Your task to perform on an android device: Go to network settings Image 0: 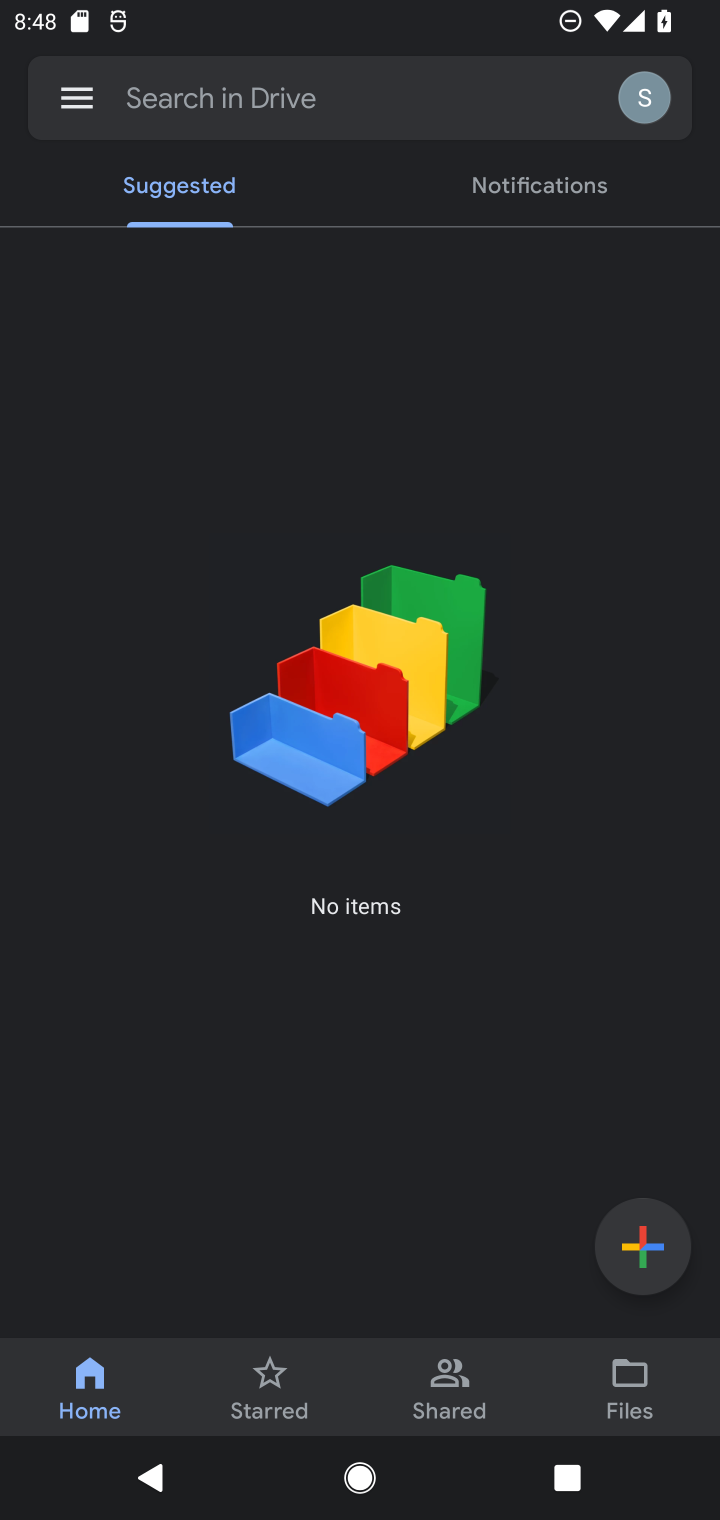
Step 0: press home button
Your task to perform on an android device: Go to network settings Image 1: 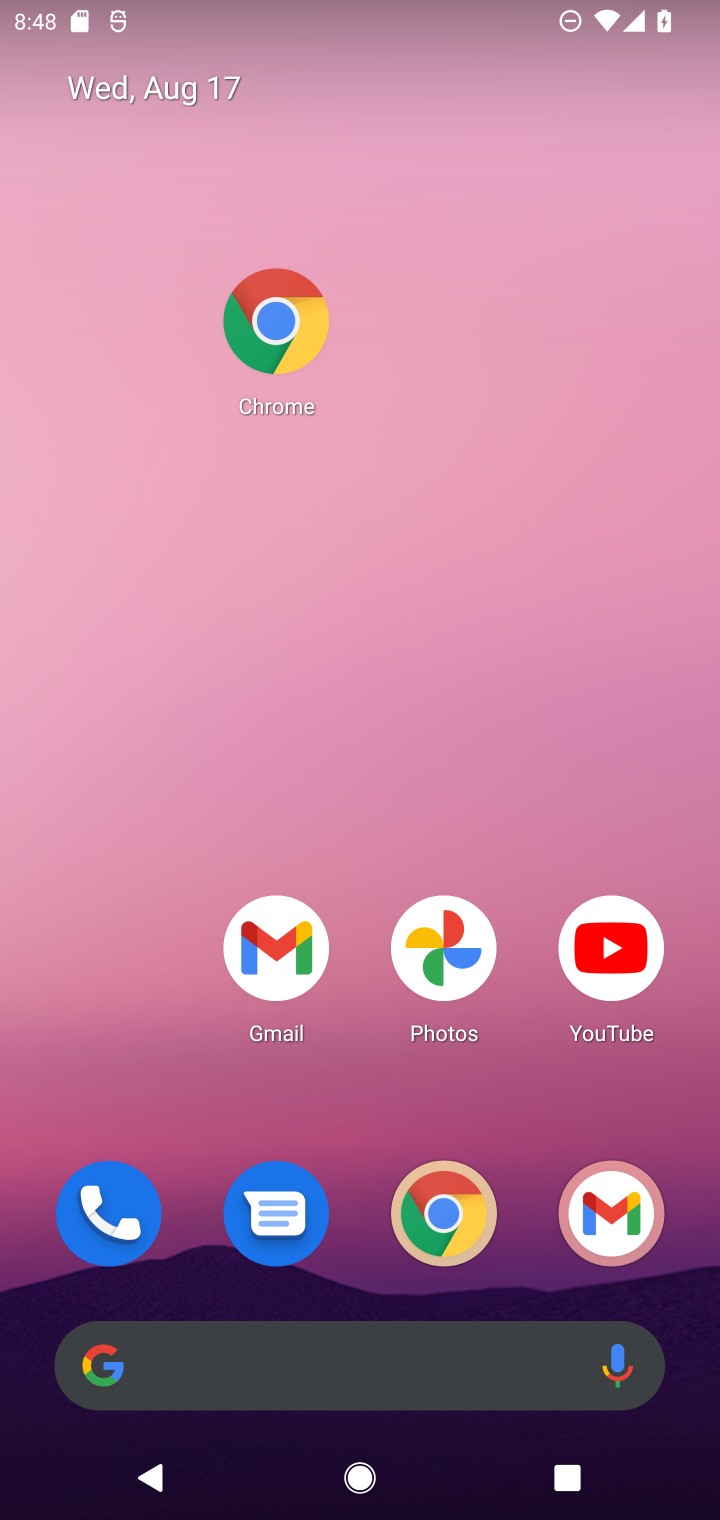
Step 1: drag from (335, 1309) to (381, 405)
Your task to perform on an android device: Go to network settings Image 2: 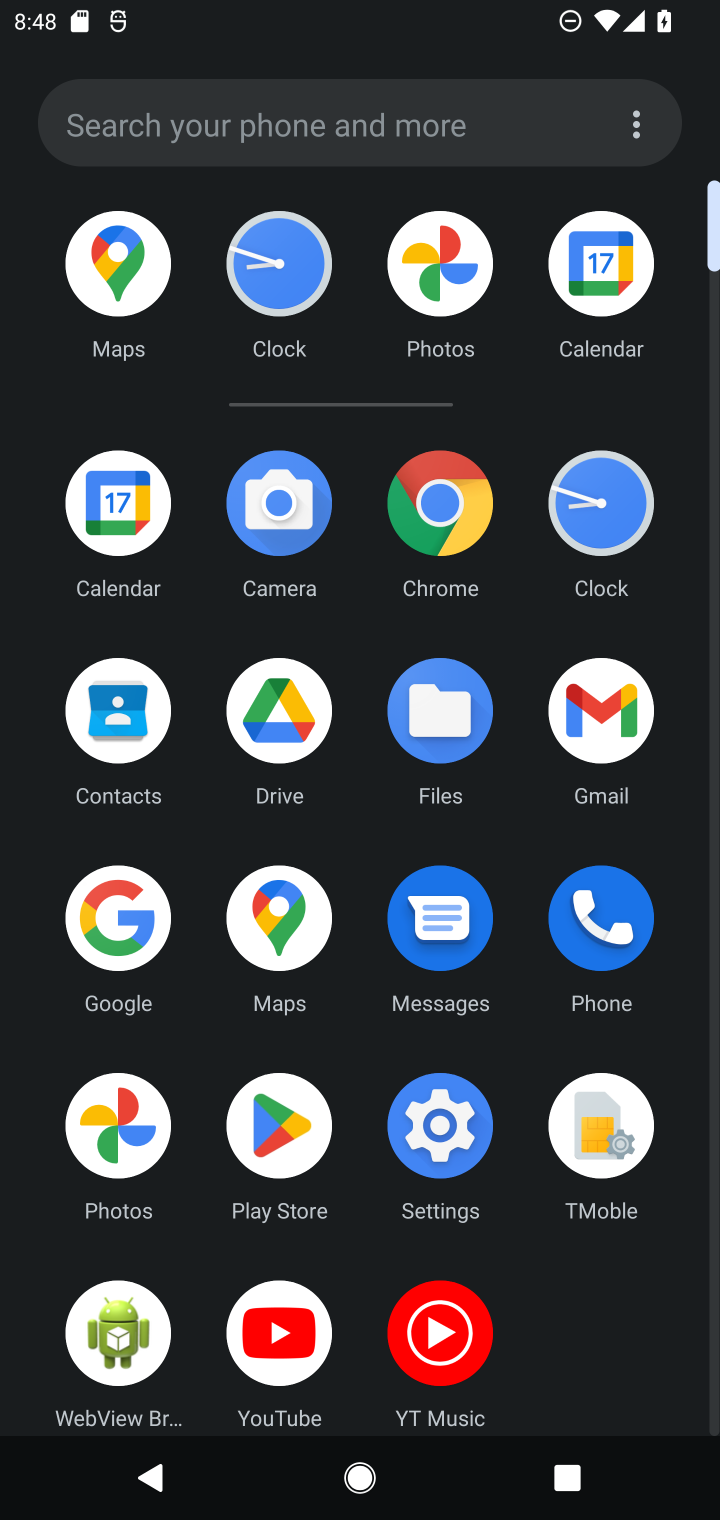
Step 2: click (419, 1183)
Your task to perform on an android device: Go to network settings Image 3: 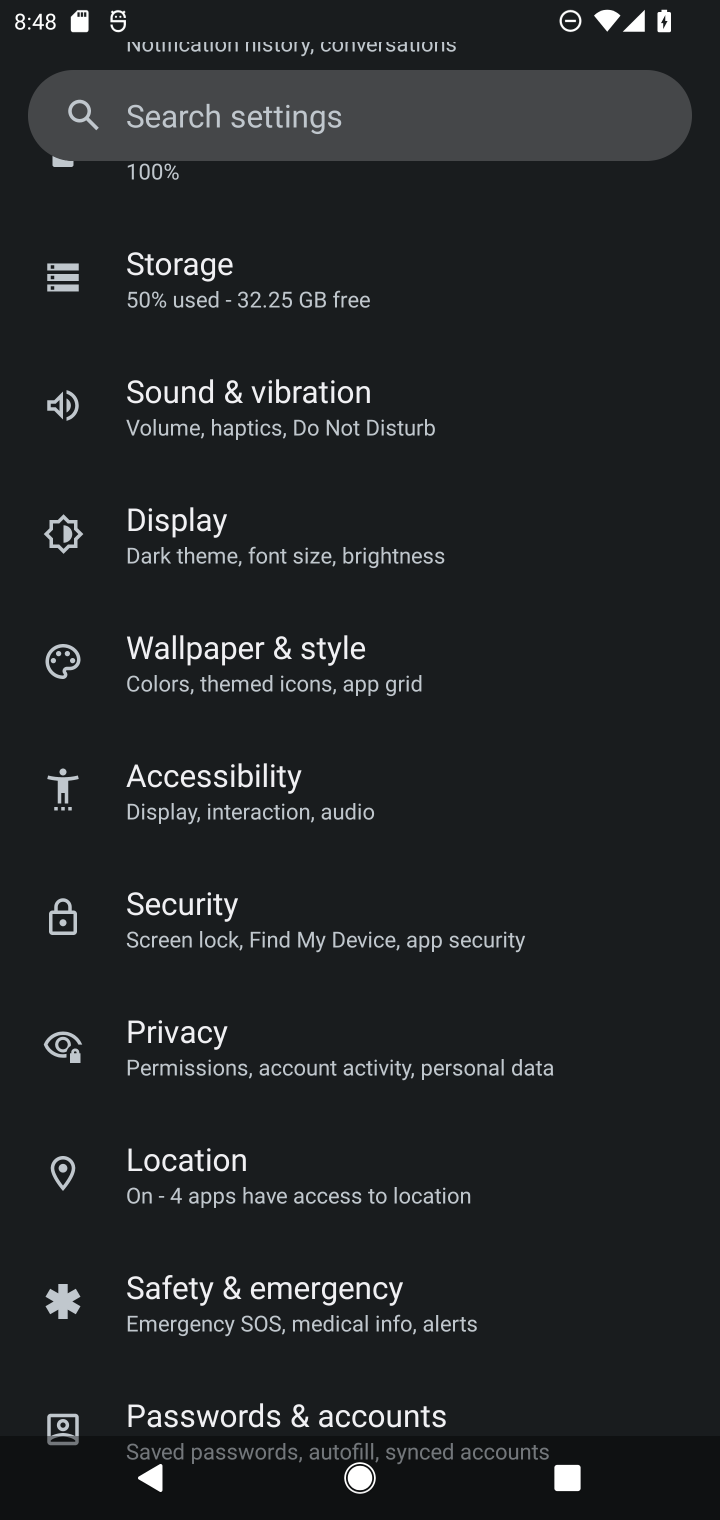
Step 3: drag from (227, 230) to (328, 912)
Your task to perform on an android device: Go to network settings Image 4: 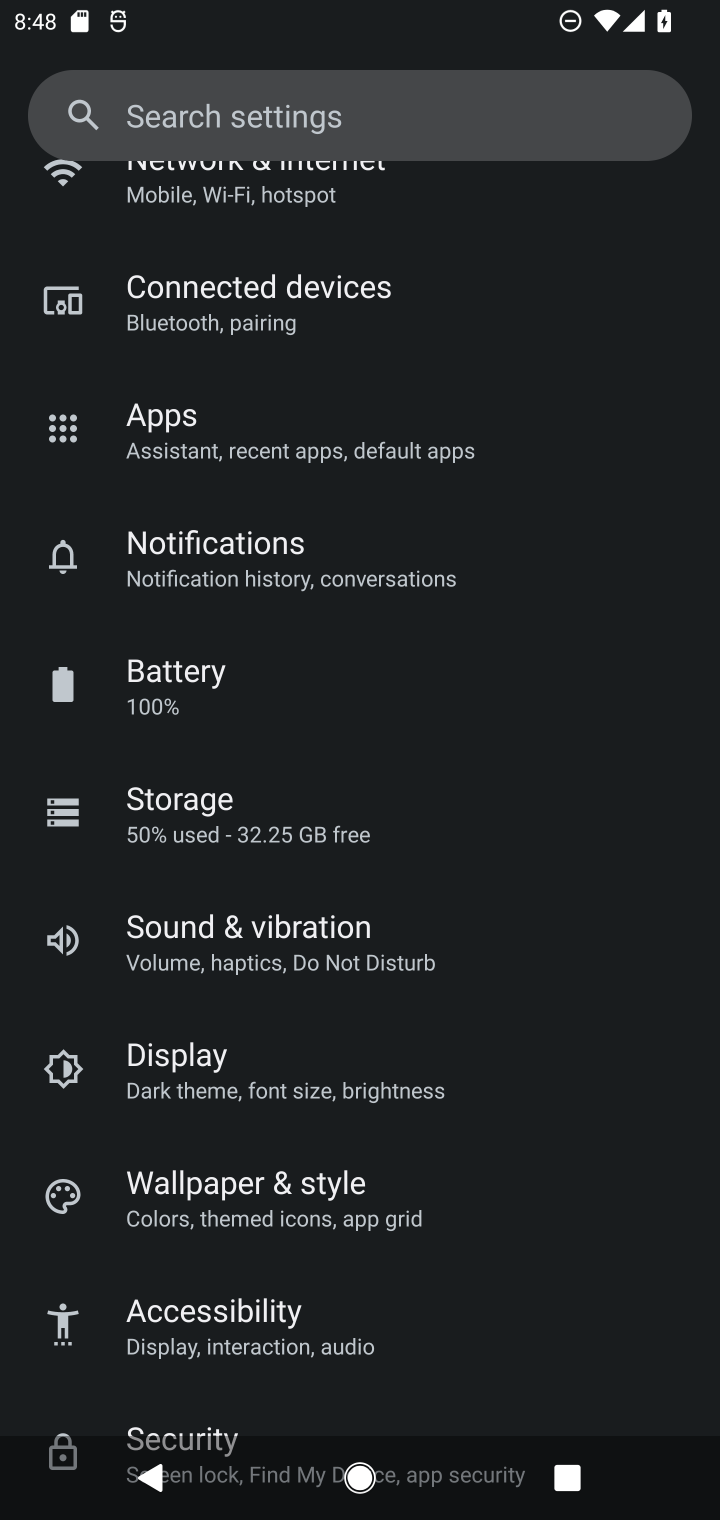
Step 4: click (247, 206)
Your task to perform on an android device: Go to network settings Image 5: 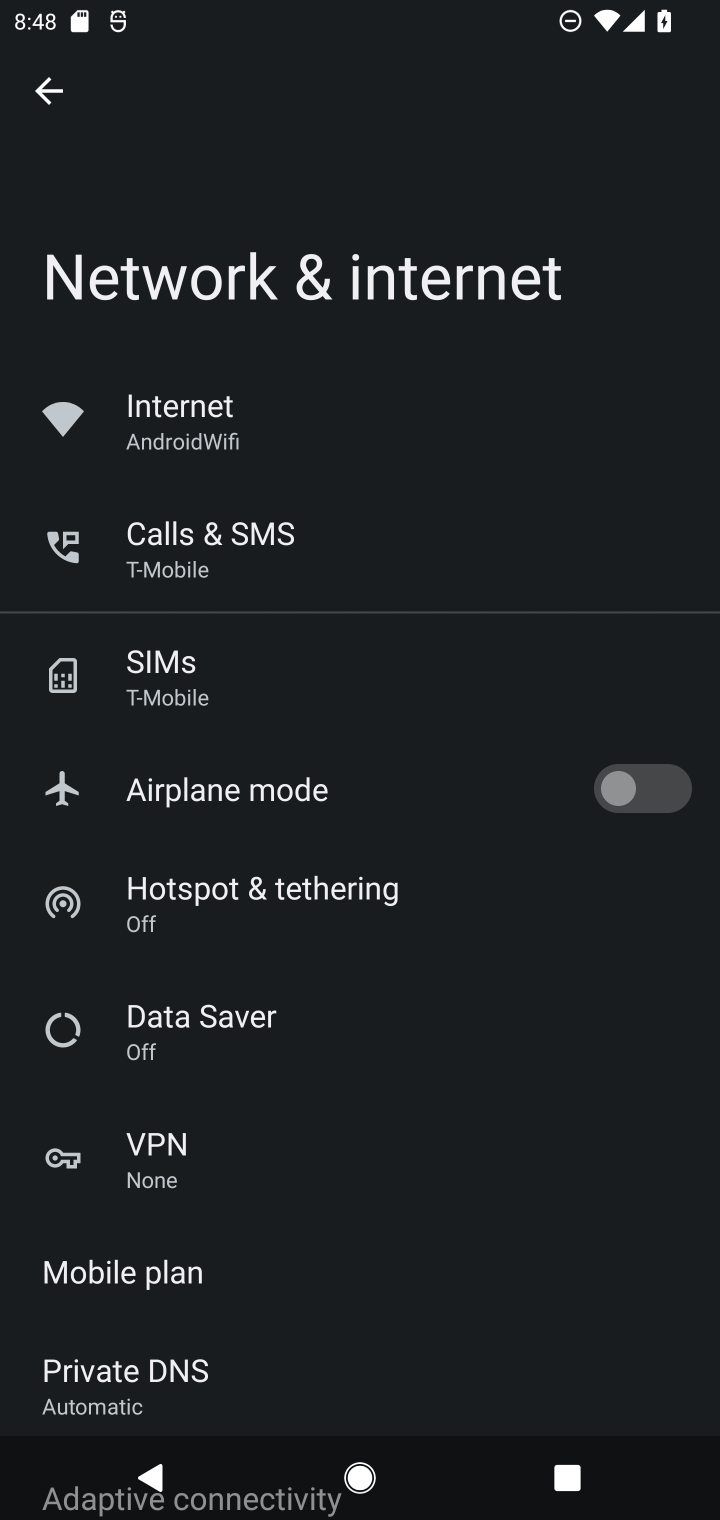
Step 5: task complete